Your task to perform on an android device: Open Reddit.com Image 0: 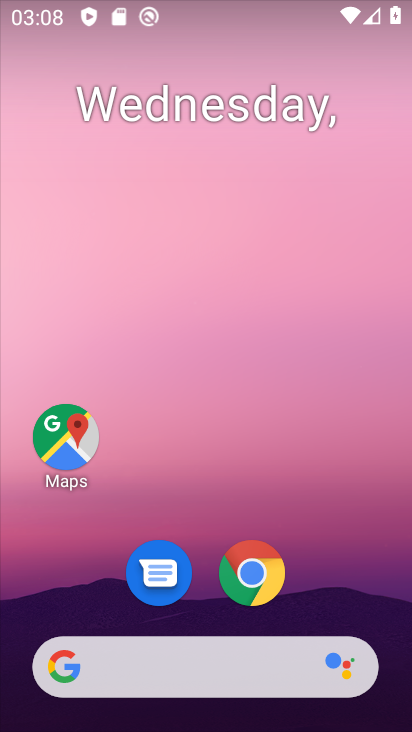
Step 0: click (244, 568)
Your task to perform on an android device: Open Reddit.com Image 1: 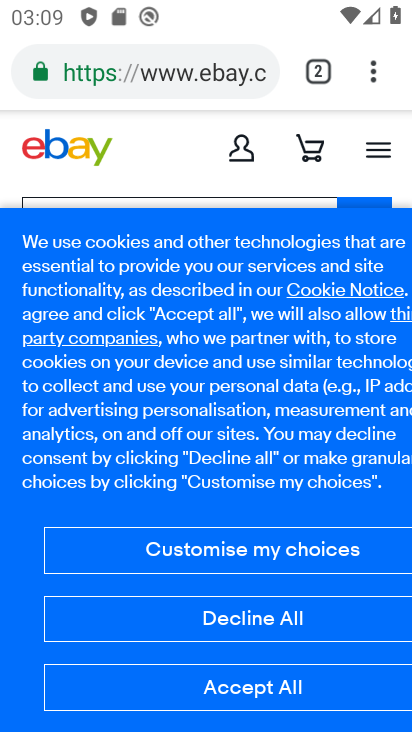
Step 1: click (374, 82)
Your task to perform on an android device: Open Reddit.com Image 2: 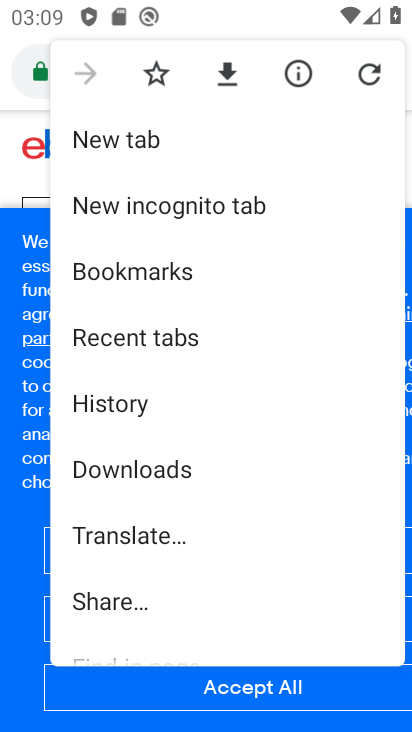
Step 2: click (140, 134)
Your task to perform on an android device: Open Reddit.com Image 3: 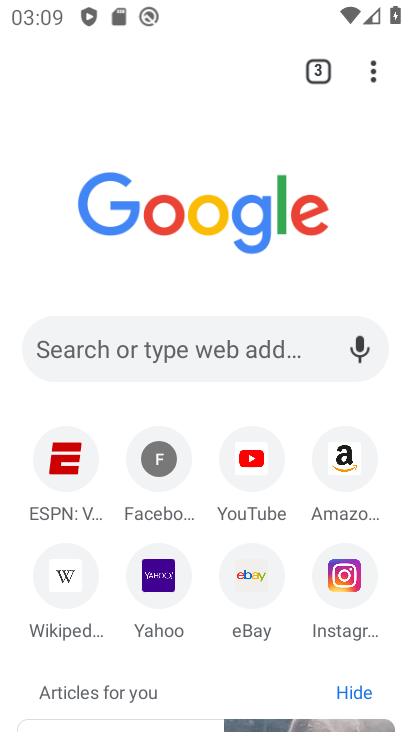
Step 3: click (169, 347)
Your task to perform on an android device: Open Reddit.com Image 4: 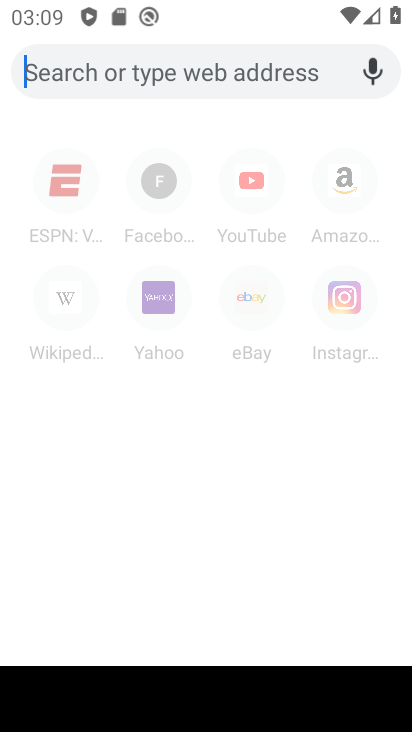
Step 4: type "Reddit.com"
Your task to perform on an android device: Open Reddit.com Image 5: 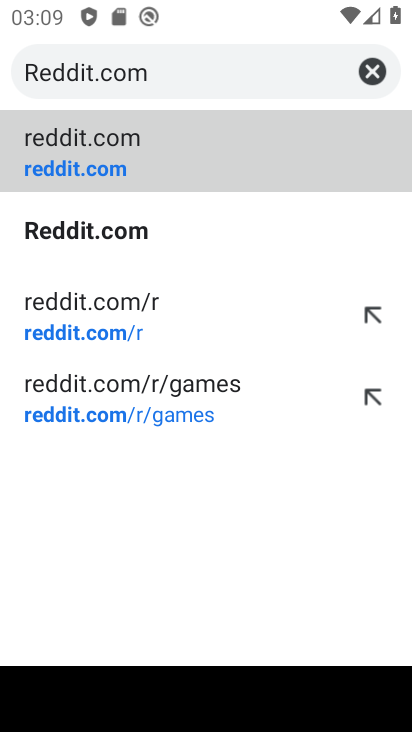
Step 5: click (70, 143)
Your task to perform on an android device: Open Reddit.com Image 6: 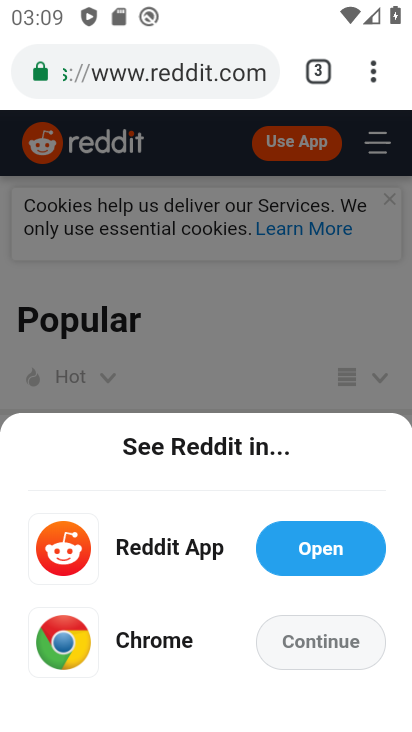
Step 6: task complete